Your task to perform on an android device: create a new album in the google photos Image 0: 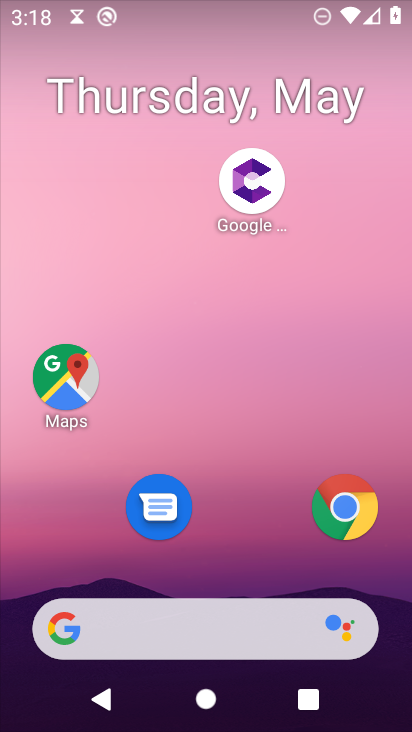
Step 0: drag from (247, 576) to (81, 60)
Your task to perform on an android device: create a new album in the google photos Image 1: 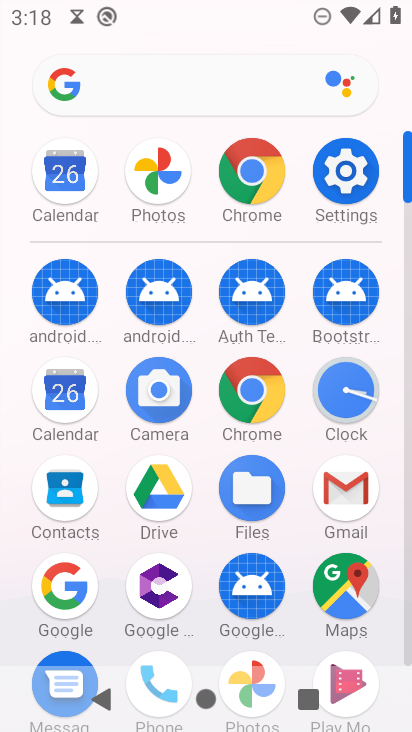
Step 1: click (157, 163)
Your task to perform on an android device: create a new album in the google photos Image 2: 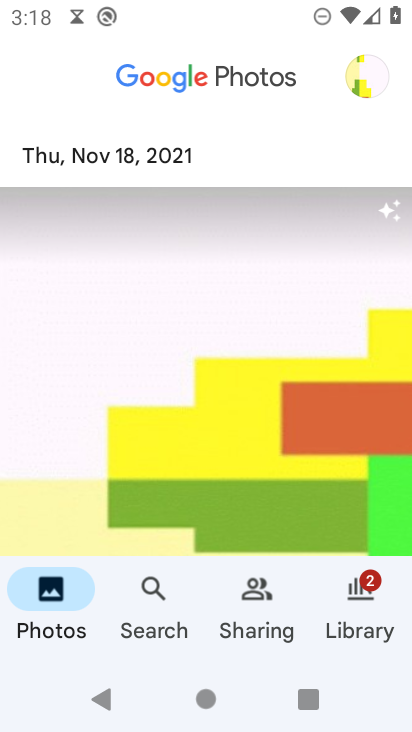
Step 2: drag from (217, 512) to (166, 88)
Your task to perform on an android device: create a new album in the google photos Image 3: 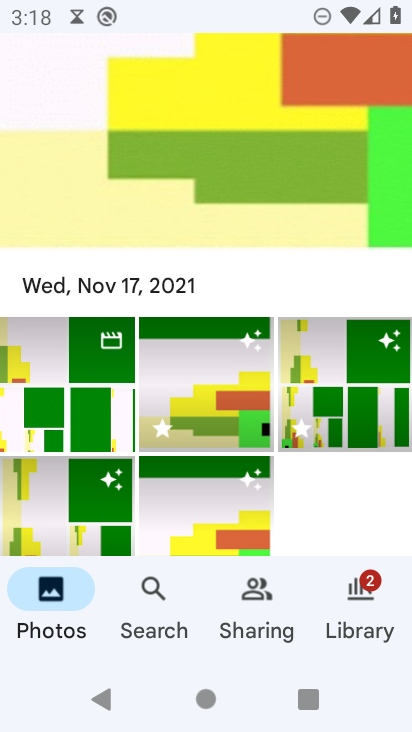
Step 3: click (53, 363)
Your task to perform on an android device: create a new album in the google photos Image 4: 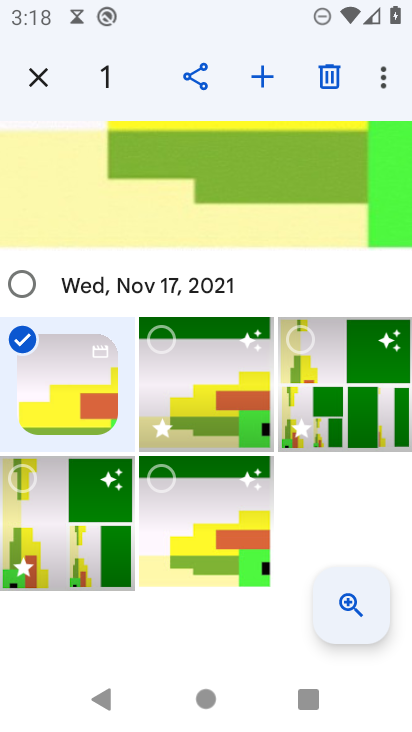
Step 4: click (265, 69)
Your task to perform on an android device: create a new album in the google photos Image 5: 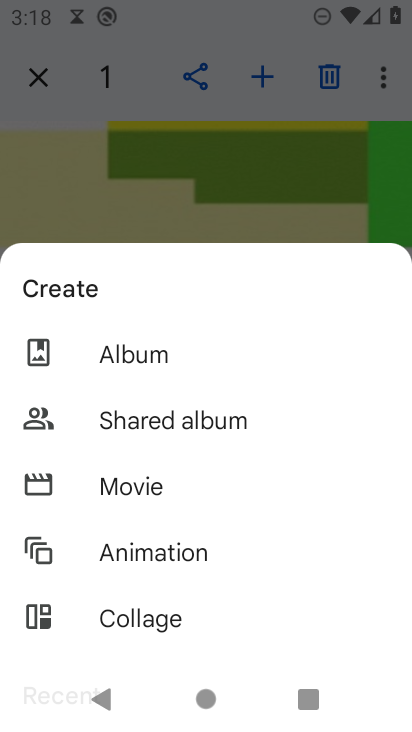
Step 5: click (136, 339)
Your task to perform on an android device: create a new album in the google photos Image 6: 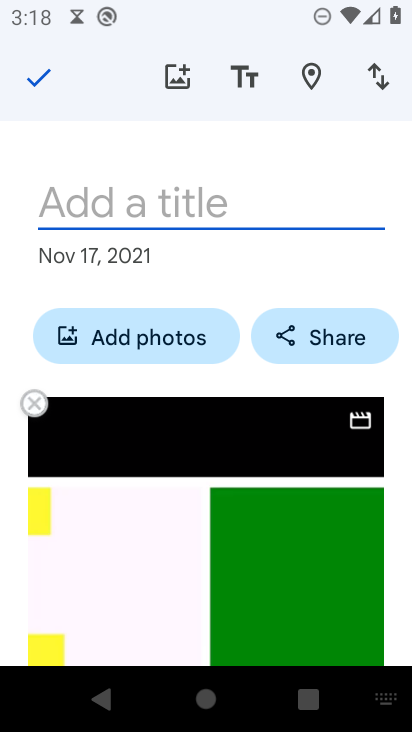
Step 6: type "jfhhjhjjh"
Your task to perform on an android device: create a new album in the google photos Image 7: 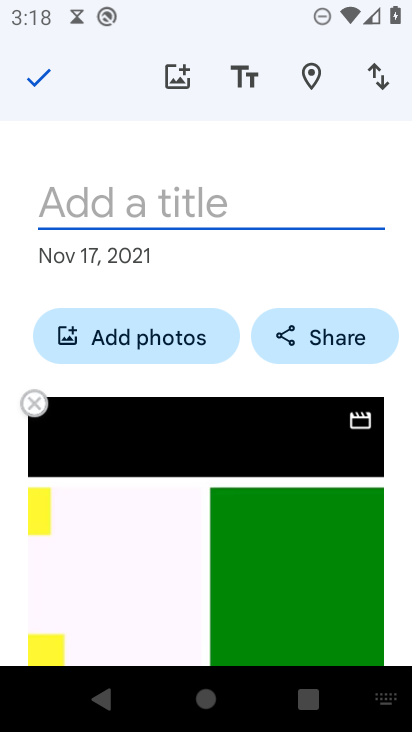
Step 7: click (176, 203)
Your task to perform on an android device: create a new album in the google photos Image 8: 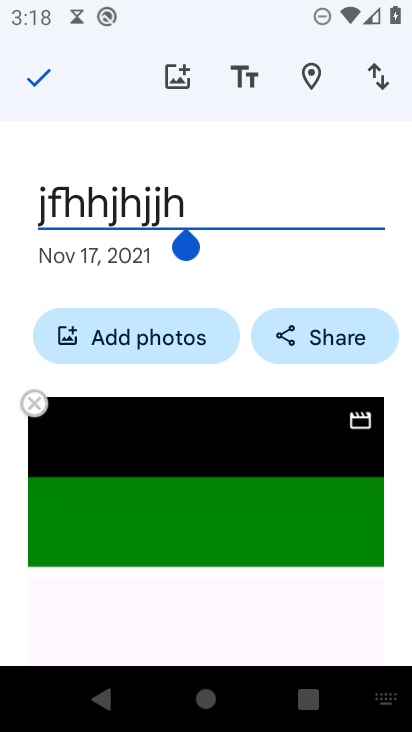
Step 8: click (43, 63)
Your task to perform on an android device: create a new album in the google photos Image 9: 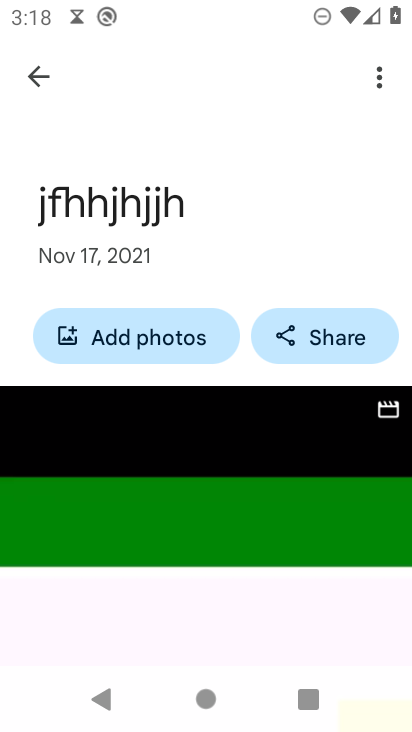
Step 9: task complete